Your task to perform on an android device: delete browsing data in the chrome app Image 0: 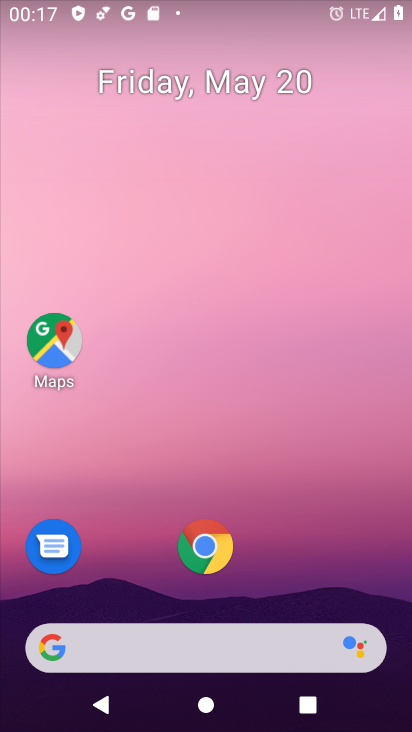
Step 0: click (212, 549)
Your task to perform on an android device: delete browsing data in the chrome app Image 1: 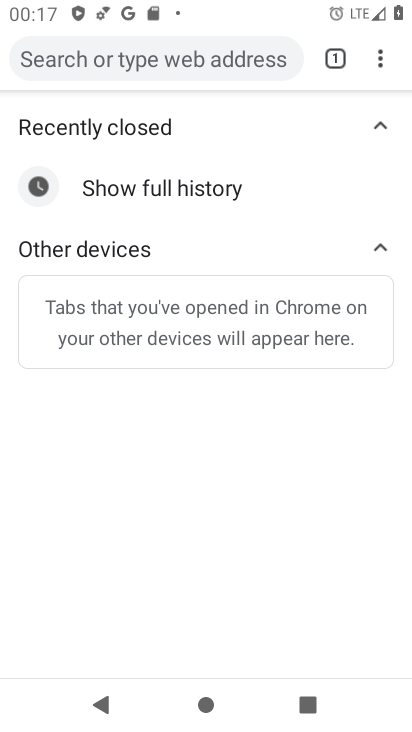
Step 1: click (386, 57)
Your task to perform on an android device: delete browsing data in the chrome app Image 2: 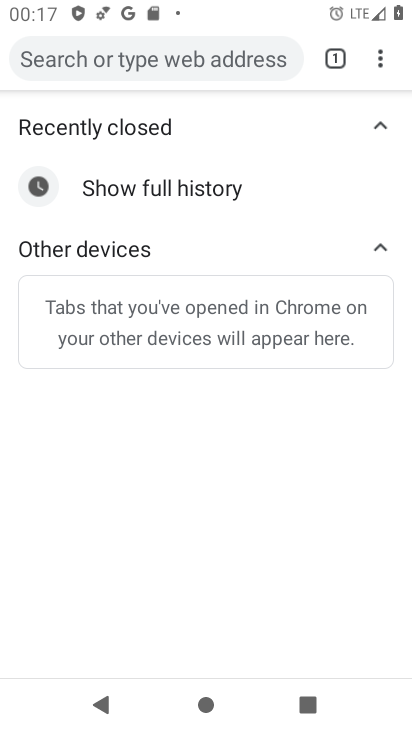
Step 2: drag from (380, 56) to (236, 320)
Your task to perform on an android device: delete browsing data in the chrome app Image 3: 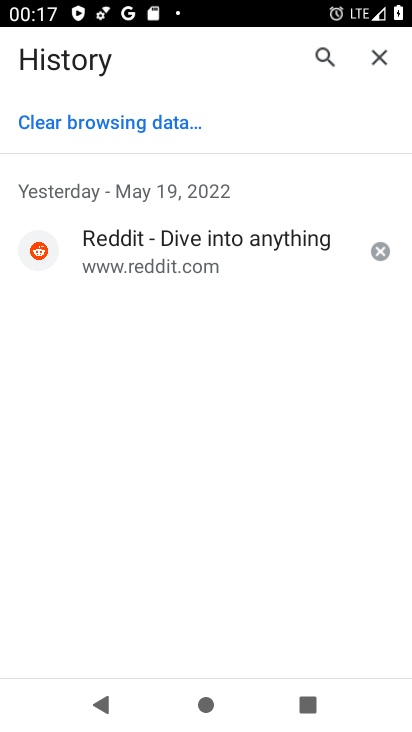
Step 3: click (151, 124)
Your task to perform on an android device: delete browsing data in the chrome app Image 4: 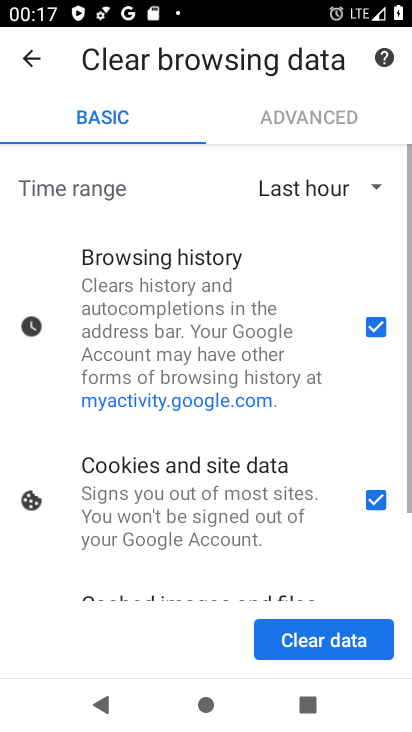
Step 4: click (361, 192)
Your task to perform on an android device: delete browsing data in the chrome app Image 5: 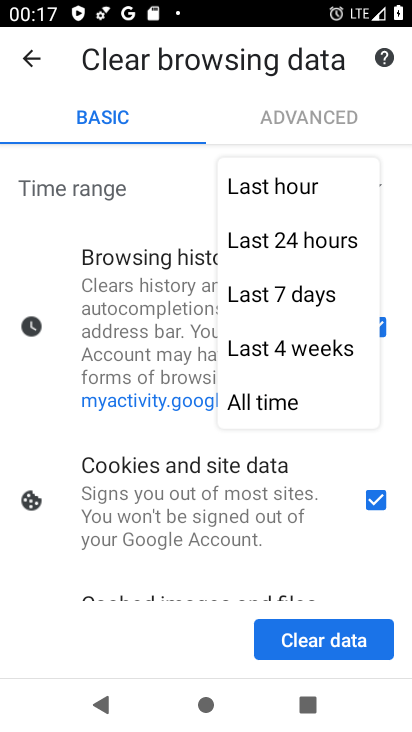
Step 5: click (314, 404)
Your task to perform on an android device: delete browsing data in the chrome app Image 6: 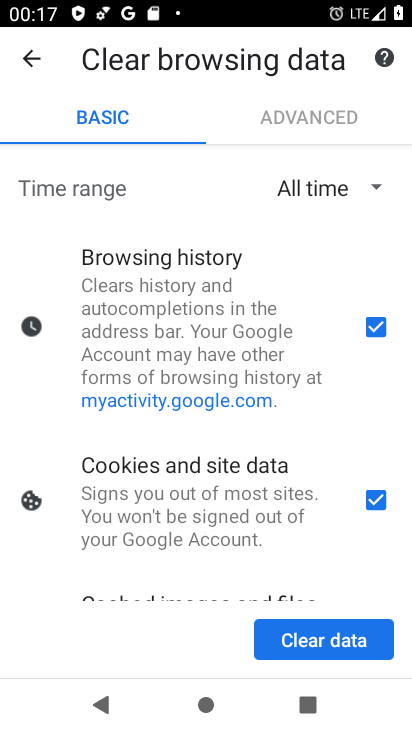
Step 6: drag from (231, 553) to (257, 241)
Your task to perform on an android device: delete browsing data in the chrome app Image 7: 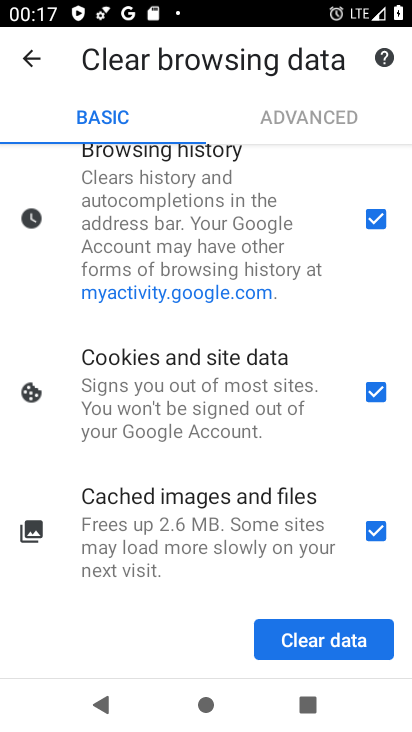
Step 7: click (316, 650)
Your task to perform on an android device: delete browsing data in the chrome app Image 8: 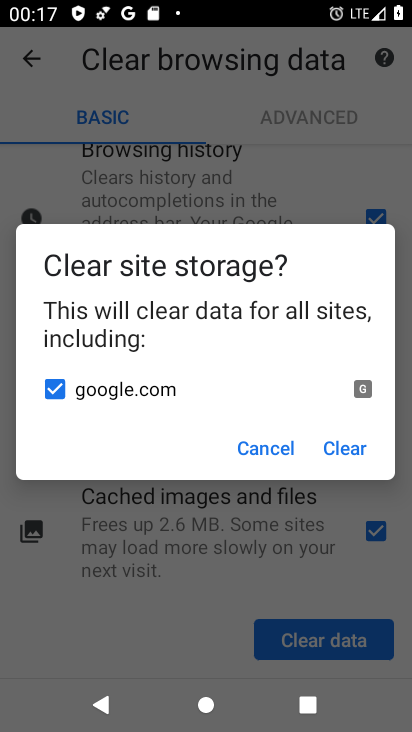
Step 8: click (338, 454)
Your task to perform on an android device: delete browsing data in the chrome app Image 9: 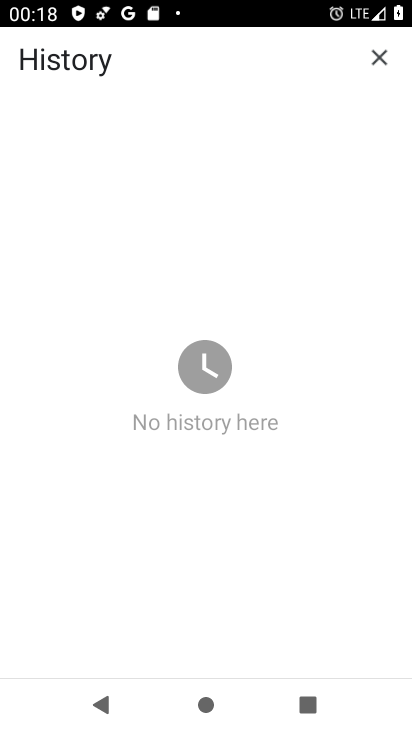
Step 9: task complete